Your task to perform on an android device: What's on my calendar tomorrow? Image 0: 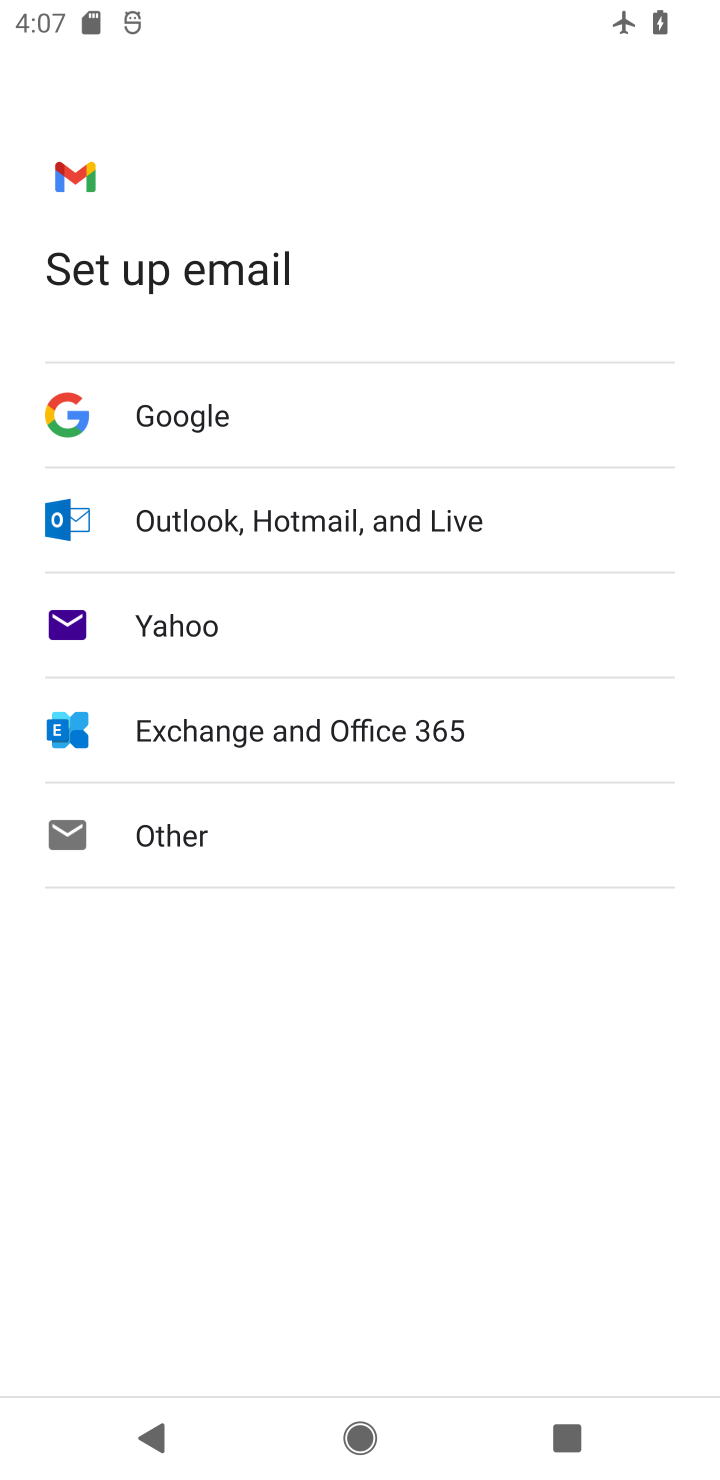
Step 0: press back button
Your task to perform on an android device: What's on my calendar tomorrow? Image 1: 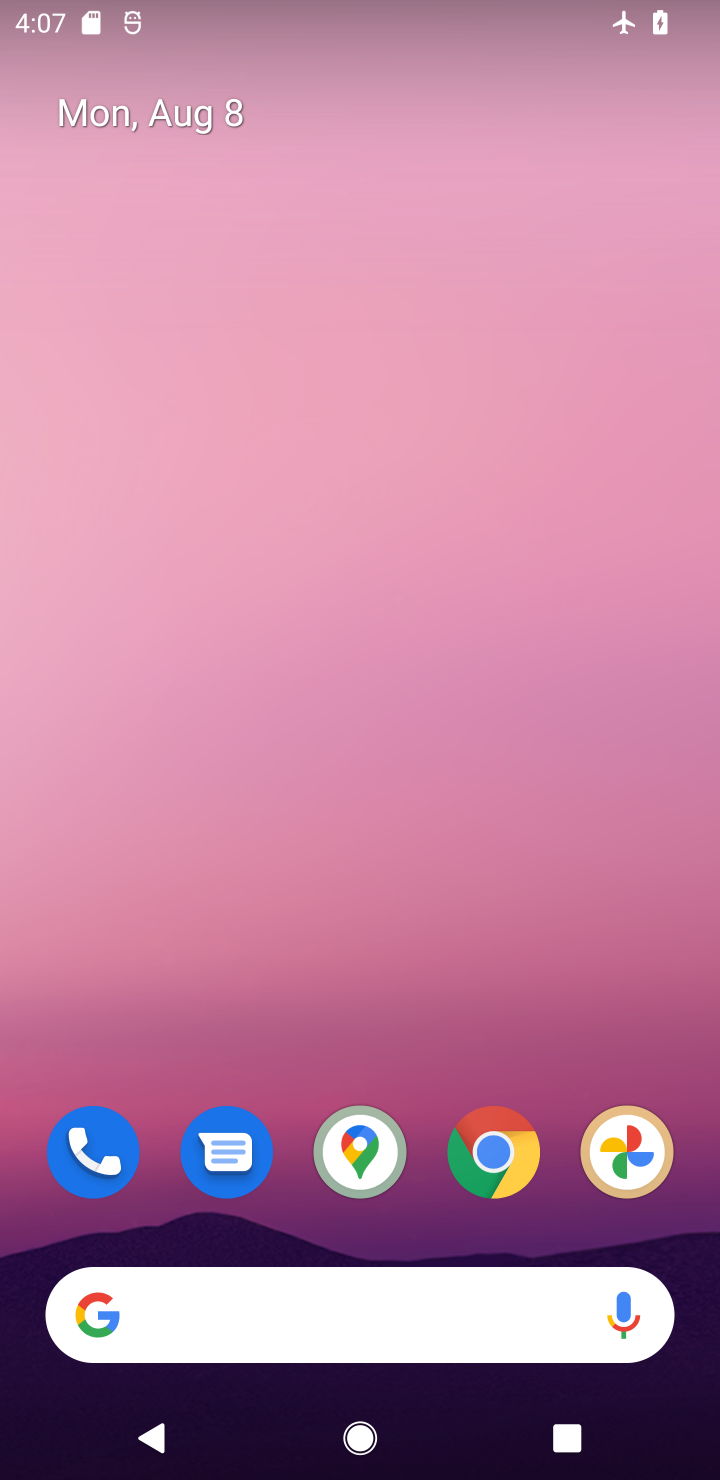
Step 1: click (266, 1316)
Your task to perform on an android device: What's on my calendar tomorrow? Image 2: 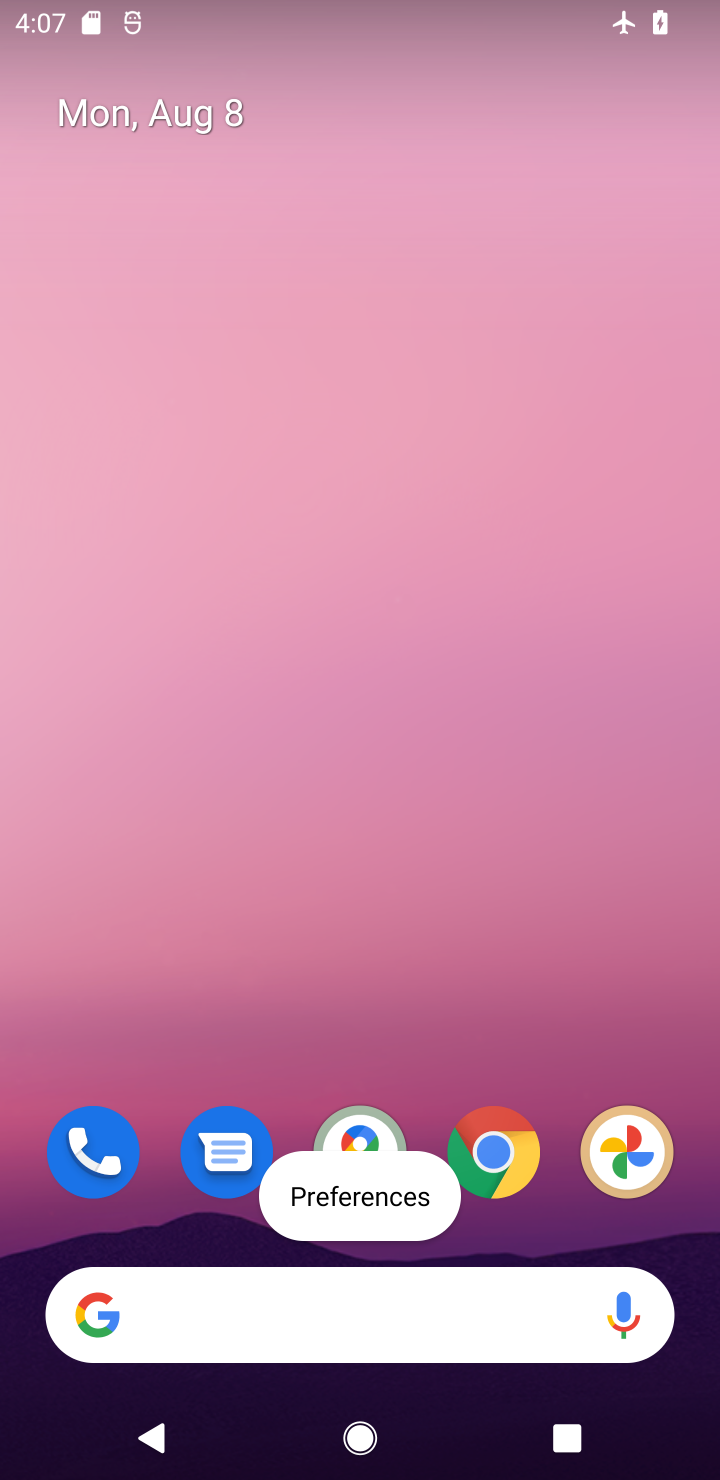
Step 2: drag from (298, 1122) to (504, 14)
Your task to perform on an android device: What's on my calendar tomorrow? Image 3: 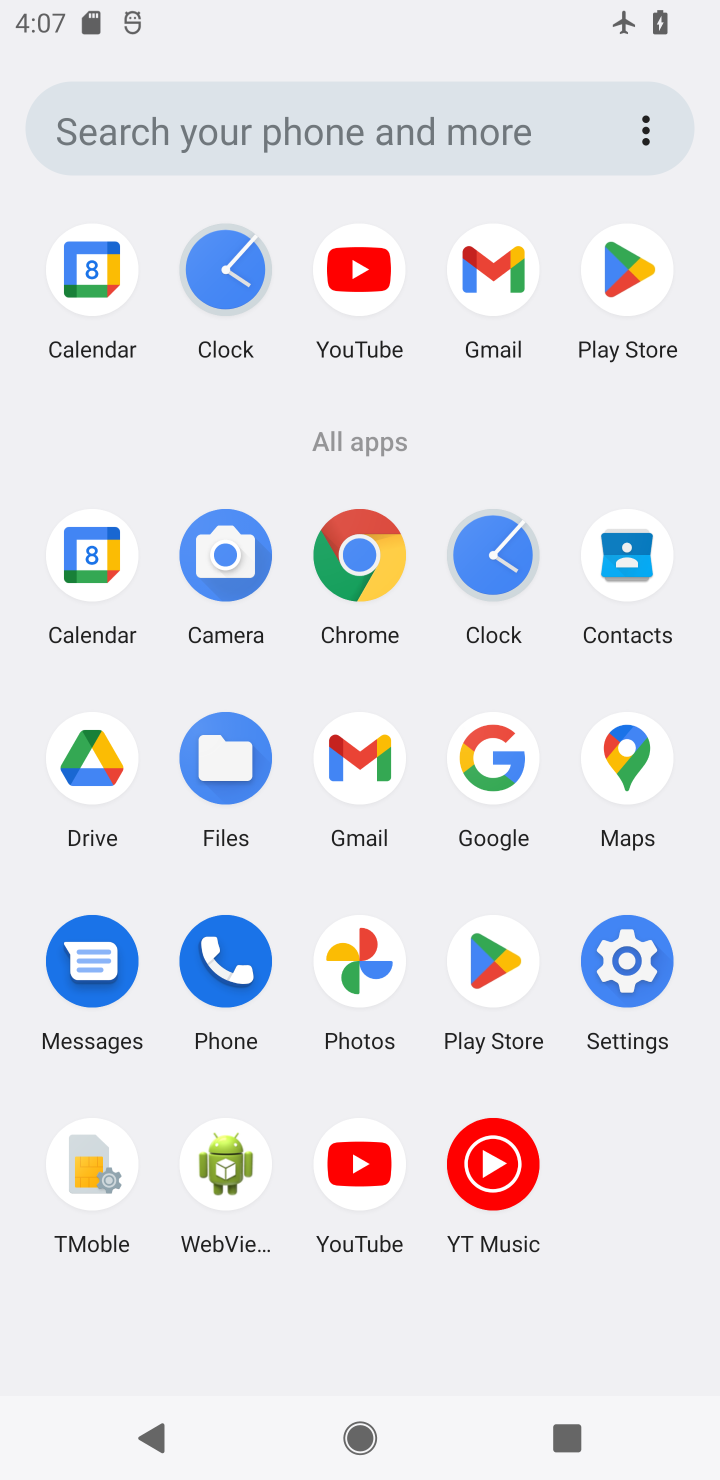
Step 3: click (85, 555)
Your task to perform on an android device: What's on my calendar tomorrow? Image 4: 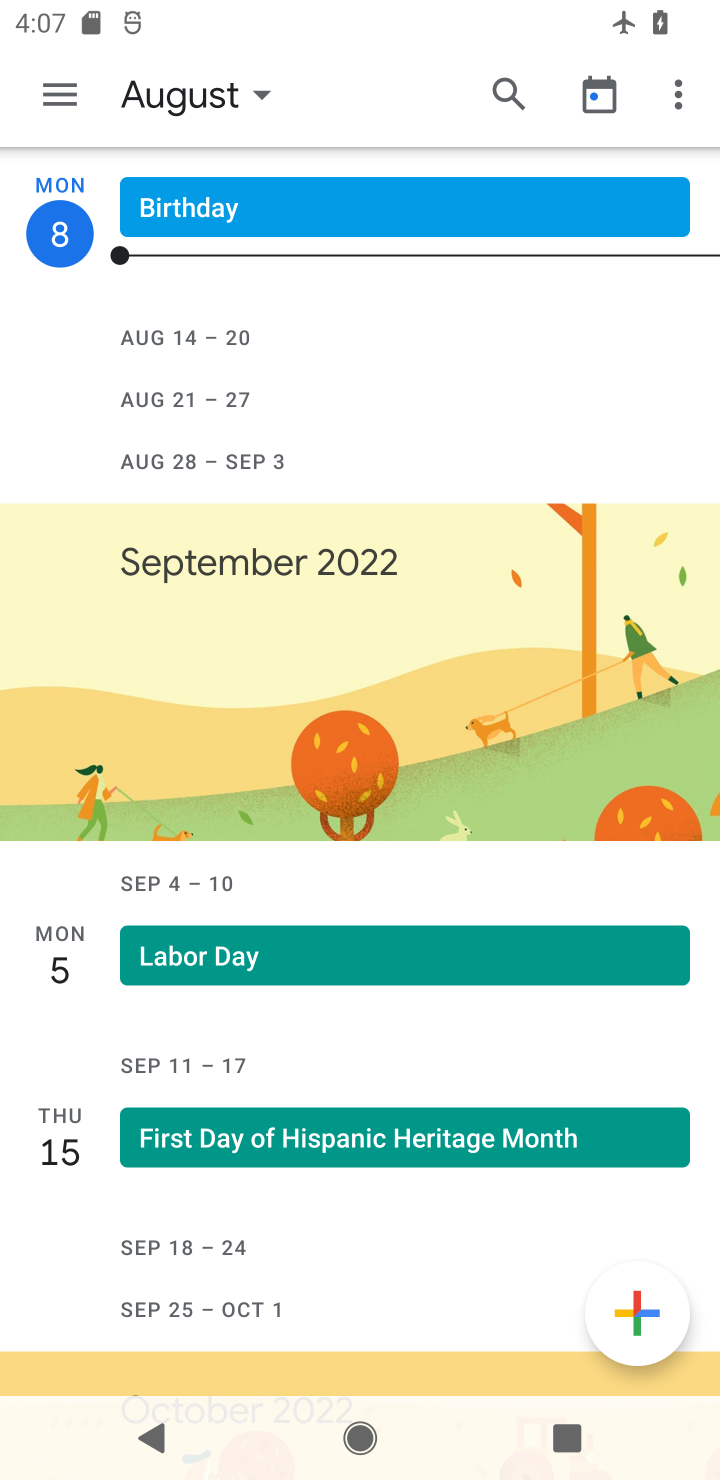
Step 4: click (224, 88)
Your task to perform on an android device: What's on my calendar tomorrow? Image 5: 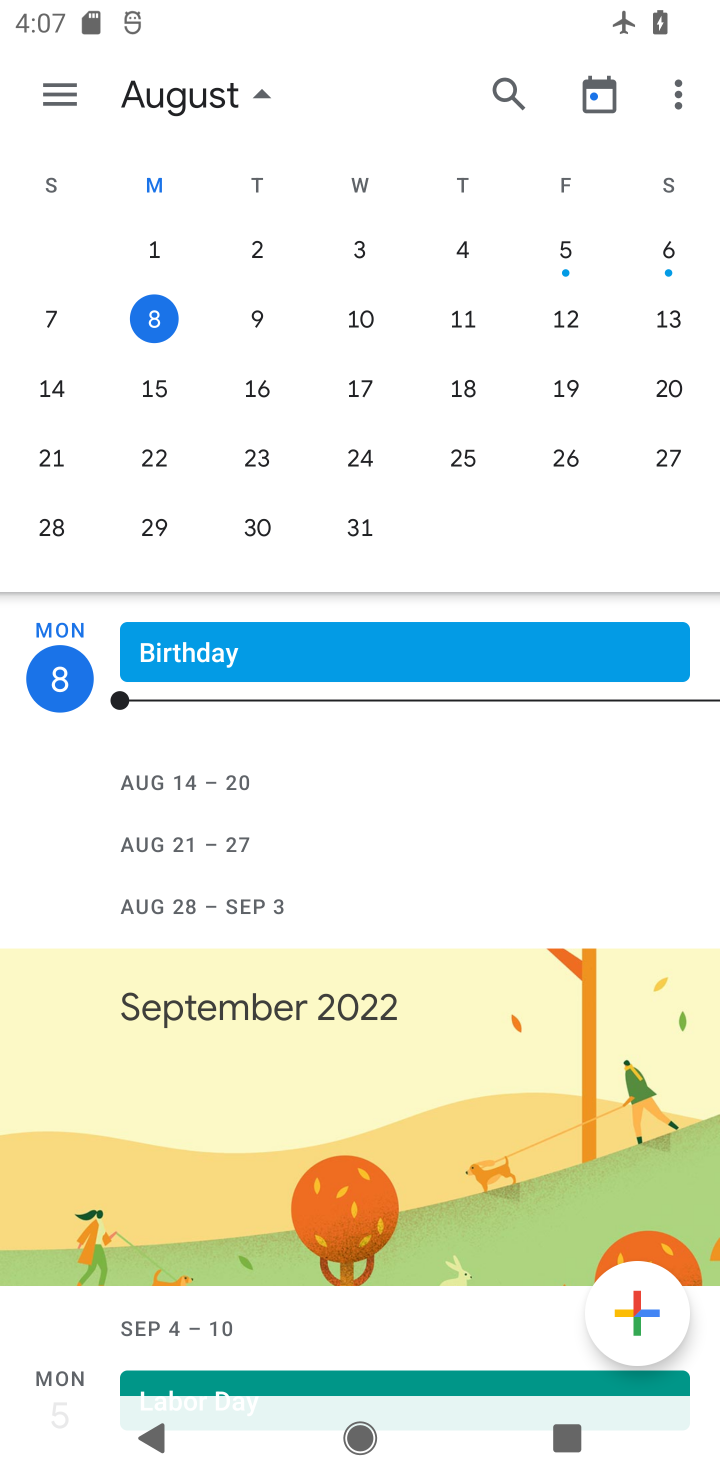
Step 5: click (229, 314)
Your task to perform on an android device: What's on my calendar tomorrow? Image 6: 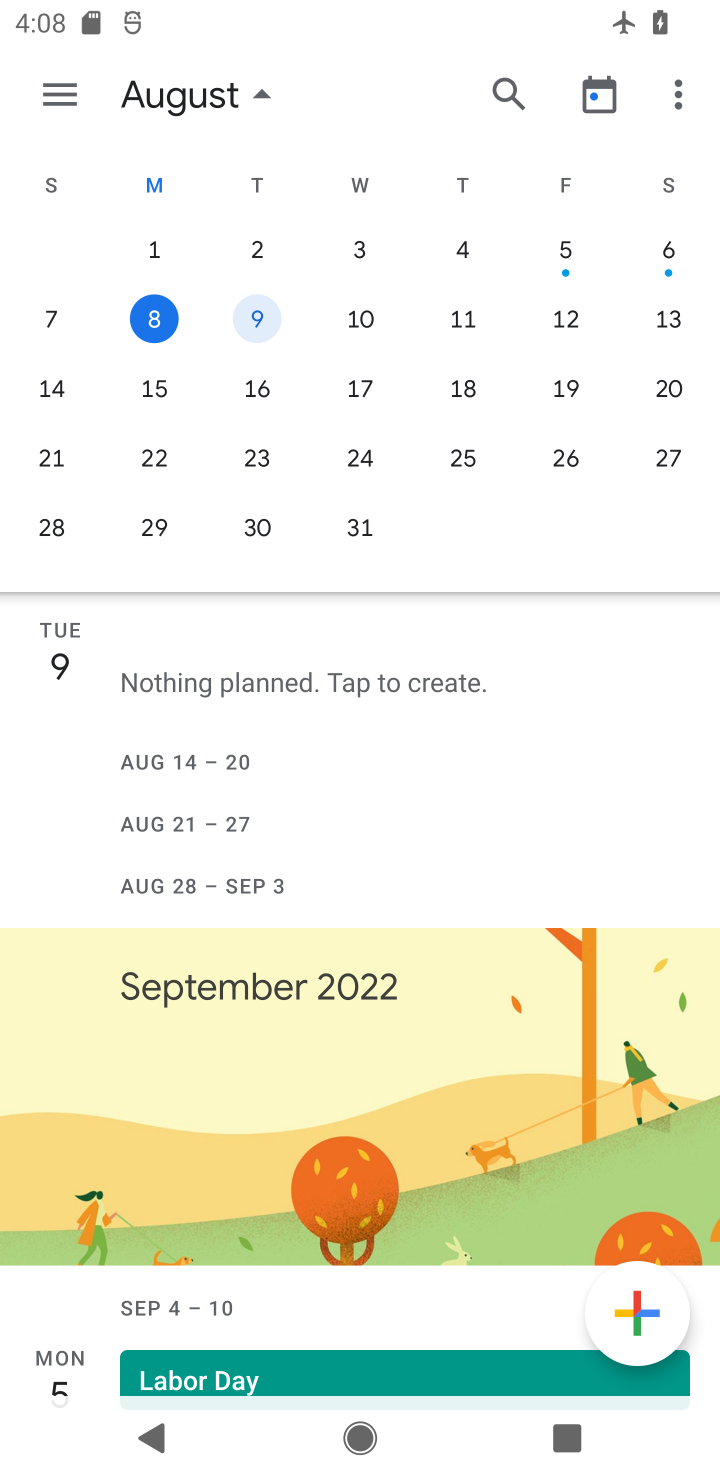
Step 6: click (266, 315)
Your task to perform on an android device: What's on my calendar tomorrow? Image 7: 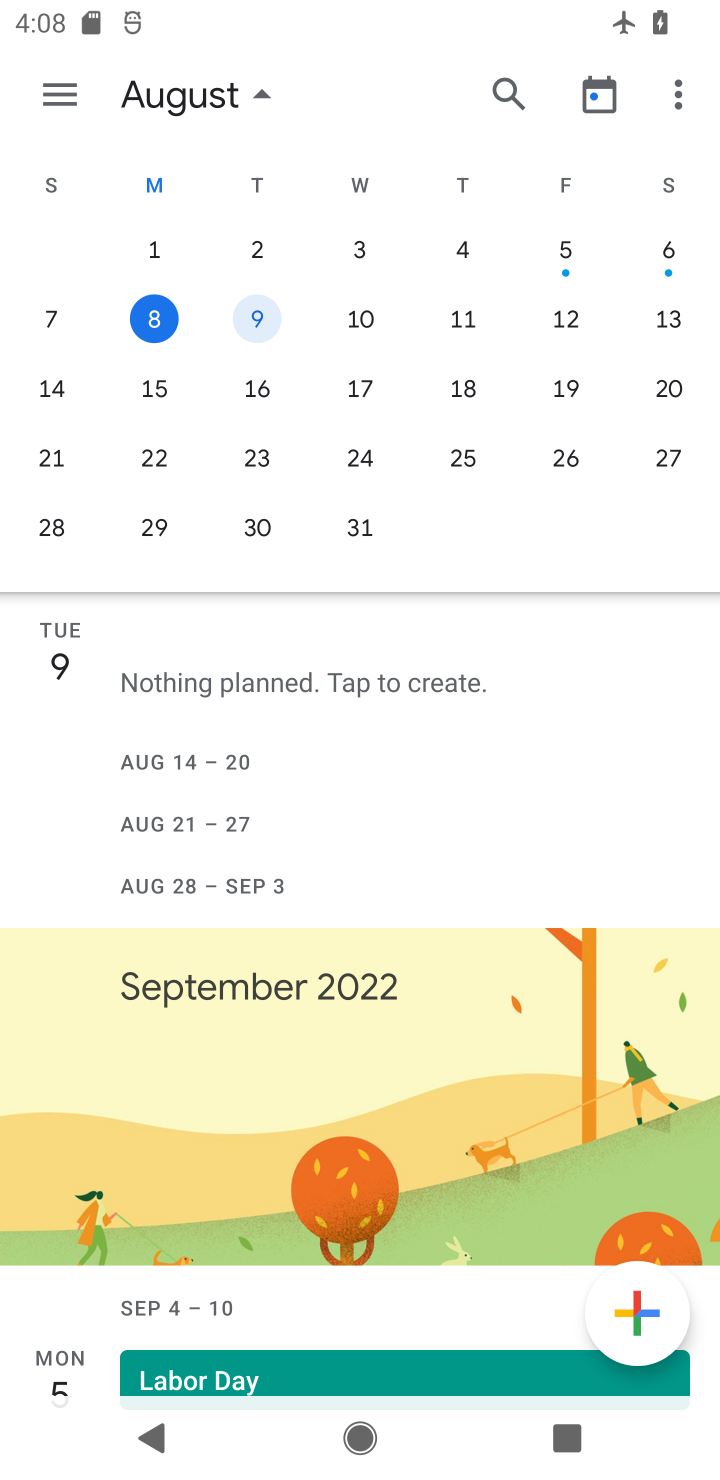
Step 7: task complete